Your task to perform on an android device: stop showing notifications on the lock screen Image 0: 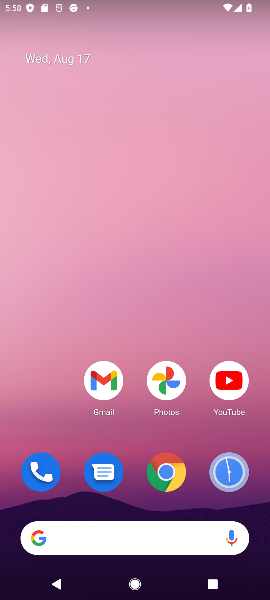
Step 0: drag from (139, 430) to (141, 72)
Your task to perform on an android device: stop showing notifications on the lock screen Image 1: 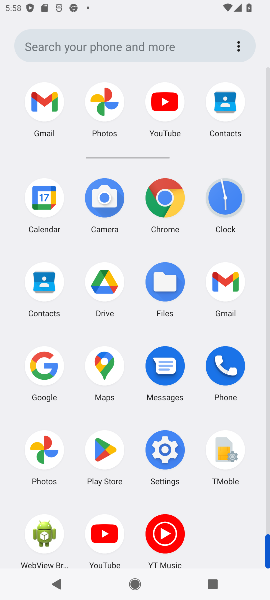
Step 1: click (179, 450)
Your task to perform on an android device: stop showing notifications on the lock screen Image 2: 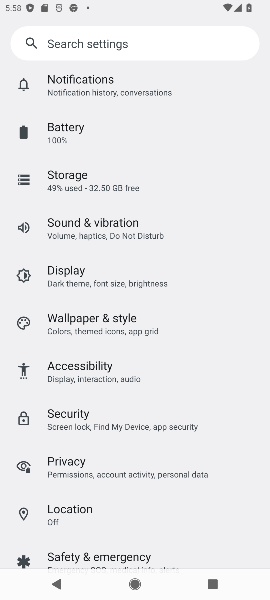
Step 2: drag from (107, 467) to (133, 218)
Your task to perform on an android device: stop showing notifications on the lock screen Image 3: 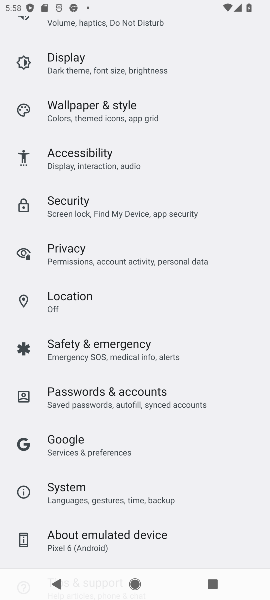
Step 3: drag from (144, 125) to (144, 484)
Your task to perform on an android device: stop showing notifications on the lock screen Image 4: 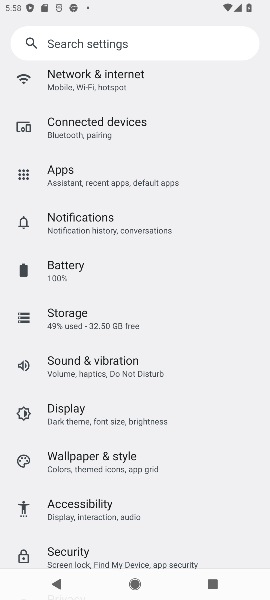
Step 4: drag from (126, 209) to (134, 473)
Your task to perform on an android device: stop showing notifications on the lock screen Image 5: 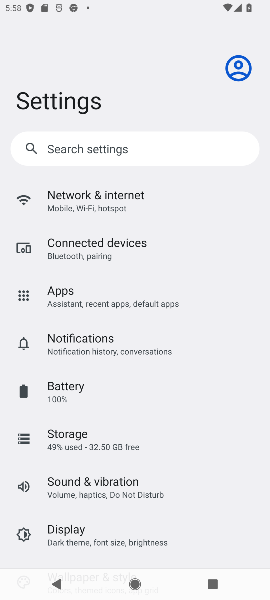
Step 5: click (123, 329)
Your task to perform on an android device: stop showing notifications on the lock screen Image 6: 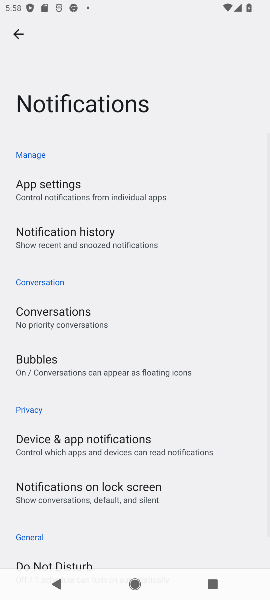
Step 6: drag from (136, 472) to (148, 218)
Your task to perform on an android device: stop showing notifications on the lock screen Image 7: 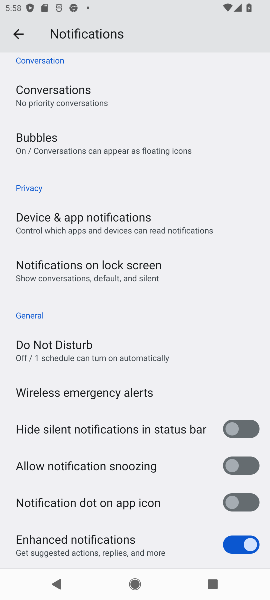
Step 7: click (129, 277)
Your task to perform on an android device: stop showing notifications on the lock screen Image 8: 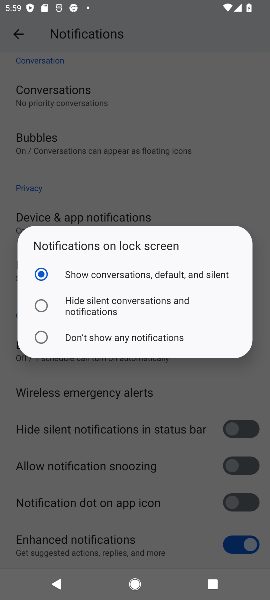
Step 8: click (101, 338)
Your task to perform on an android device: stop showing notifications on the lock screen Image 9: 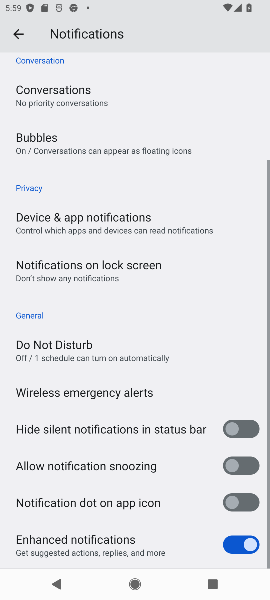
Step 9: task complete